Your task to perform on an android device: What is the recent news? Image 0: 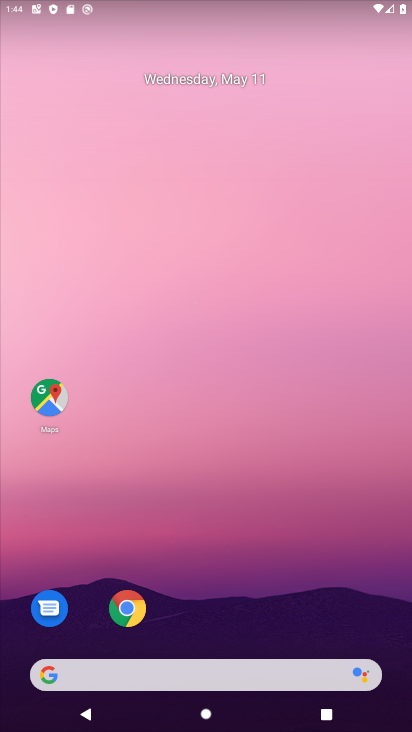
Step 0: drag from (247, 599) to (241, 313)
Your task to perform on an android device: What is the recent news? Image 1: 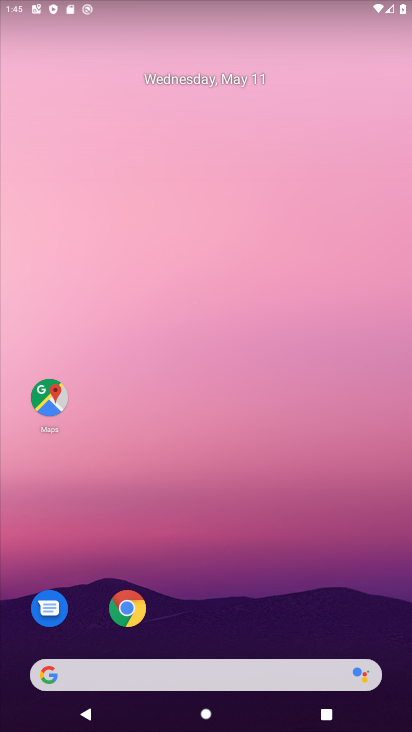
Step 1: click (150, 682)
Your task to perform on an android device: What is the recent news? Image 2: 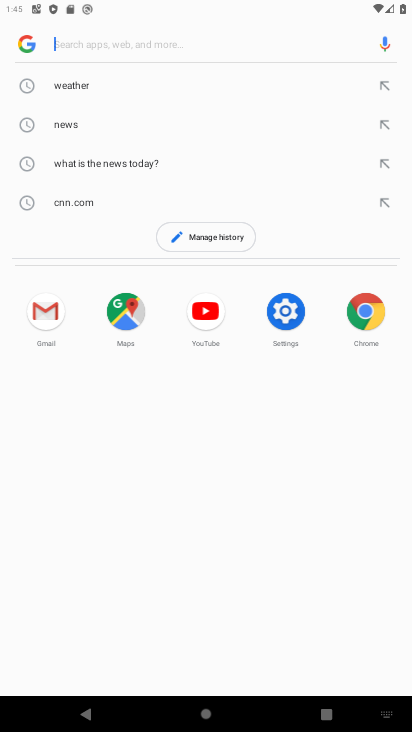
Step 2: click (148, 44)
Your task to perform on an android device: What is the recent news? Image 3: 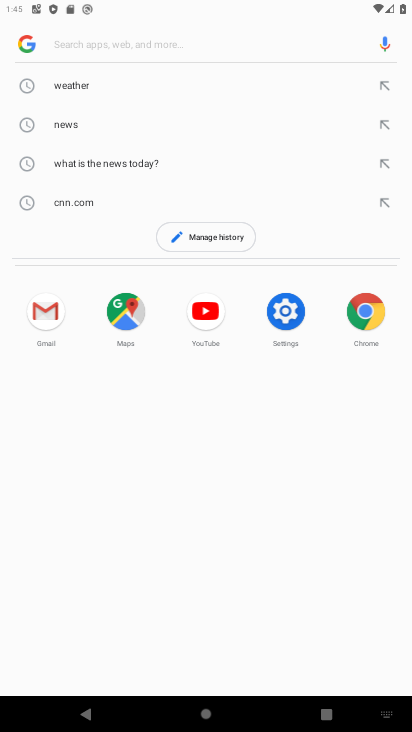
Step 3: type "recent news"
Your task to perform on an android device: What is the recent news? Image 4: 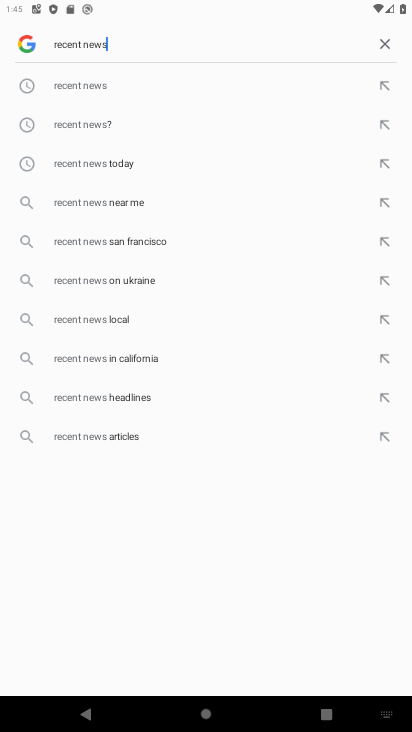
Step 4: click (262, 65)
Your task to perform on an android device: What is the recent news? Image 5: 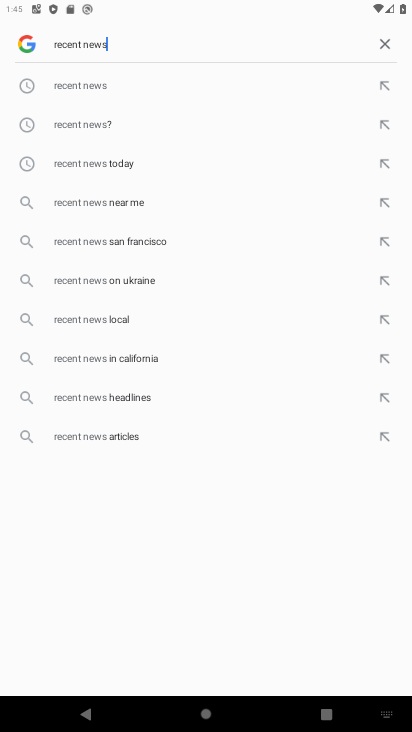
Step 5: click (262, 65)
Your task to perform on an android device: What is the recent news? Image 6: 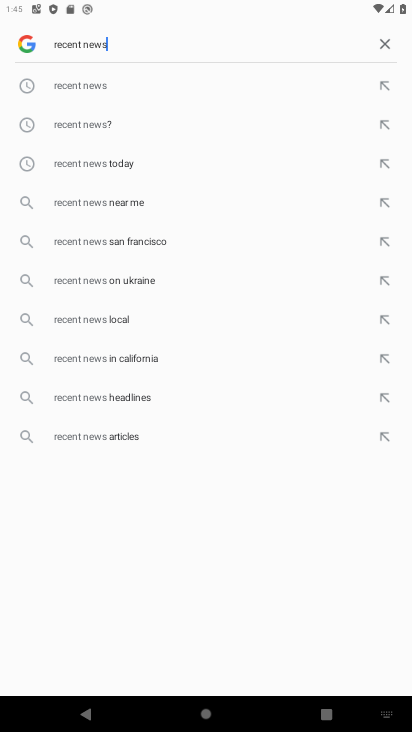
Step 6: click (267, 95)
Your task to perform on an android device: What is the recent news? Image 7: 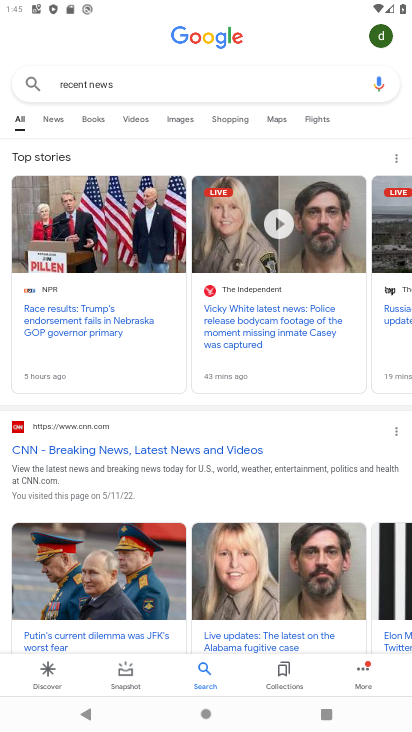
Step 7: task complete